Your task to perform on an android device: Go to eBay Image 0: 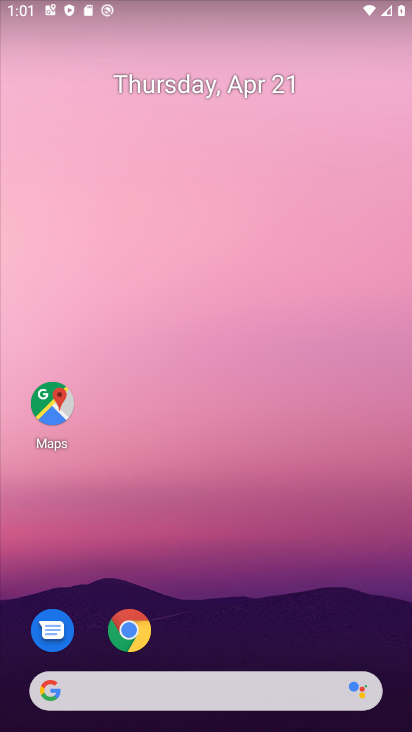
Step 0: click (144, 625)
Your task to perform on an android device: Go to eBay Image 1: 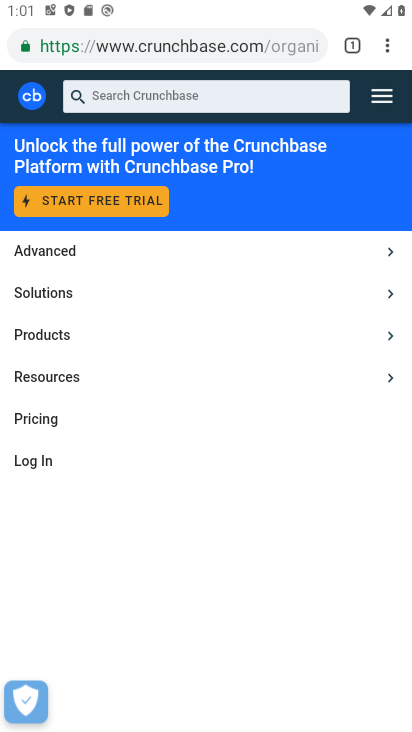
Step 1: click (238, 51)
Your task to perform on an android device: Go to eBay Image 2: 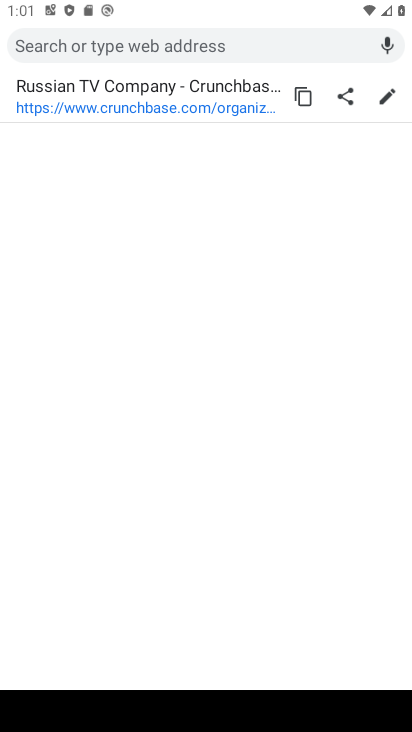
Step 2: type "ebay.com"
Your task to perform on an android device: Go to eBay Image 3: 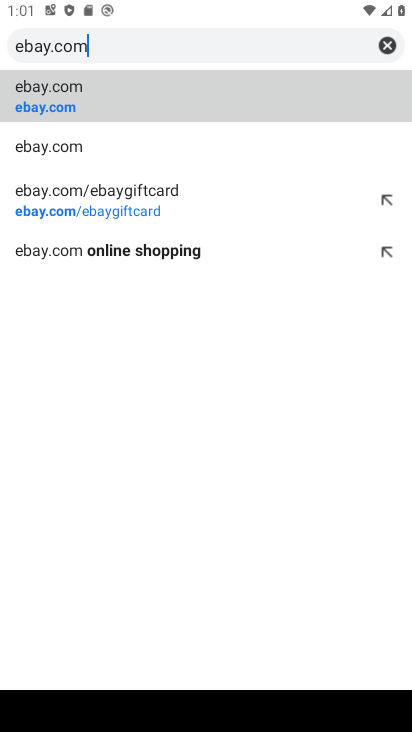
Step 3: click (53, 115)
Your task to perform on an android device: Go to eBay Image 4: 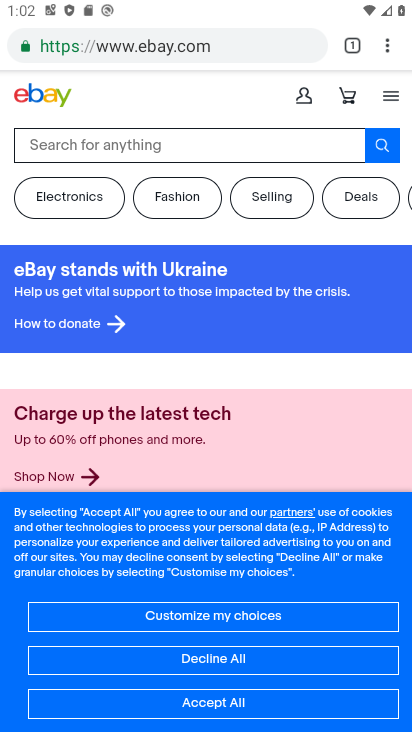
Step 4: task complete